Your task to perform on an android device: turn on location history Image 0: 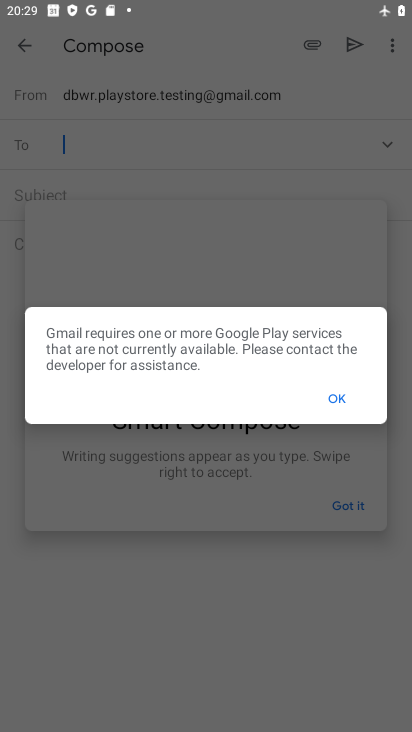
Step 0: press home button
Your task to perform on an android device: turn on location history Image 1: 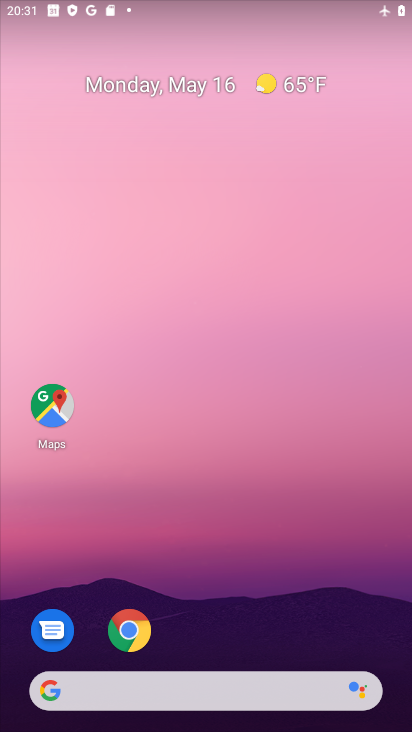
Step 1: drag from (195, 643) to (217, 100)
Your task to perform on an android device: turn on location history Image 2: 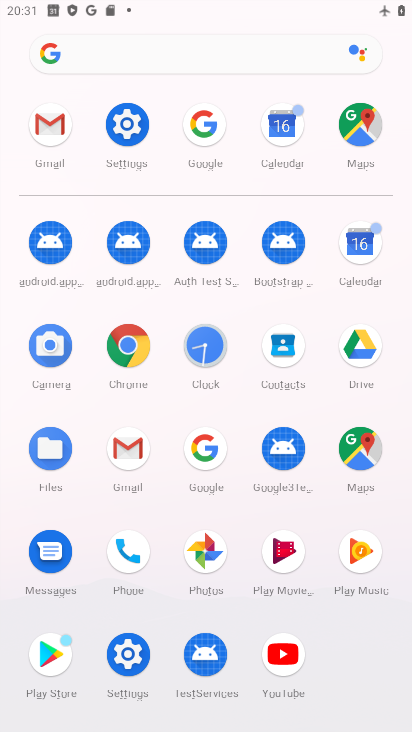
Step 2: click (143, 113)
Your task to perform on an android device: turn on location history Image 3: 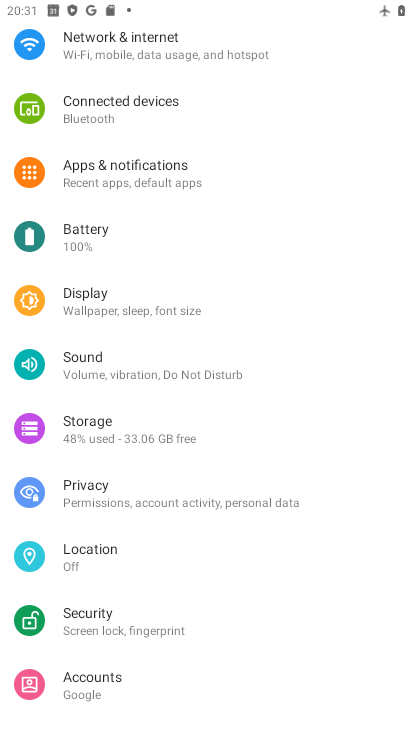
Step 3: click (113, 559)
Your task to perform on an android device: turn on location history Image 4: 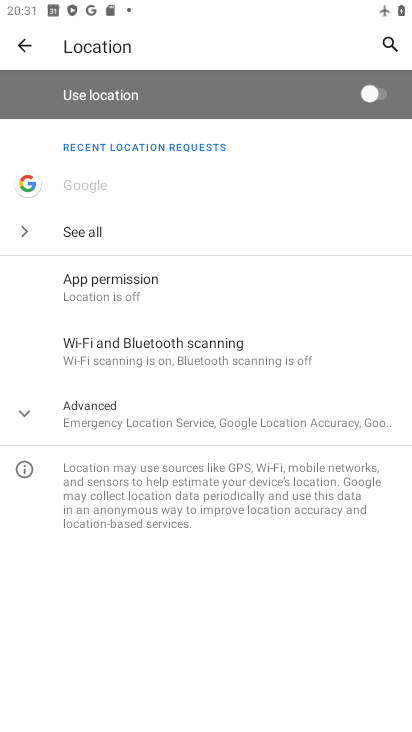
Step 4: click (136, 404)
Your task to perform on an android device: turn on location history Image 5: 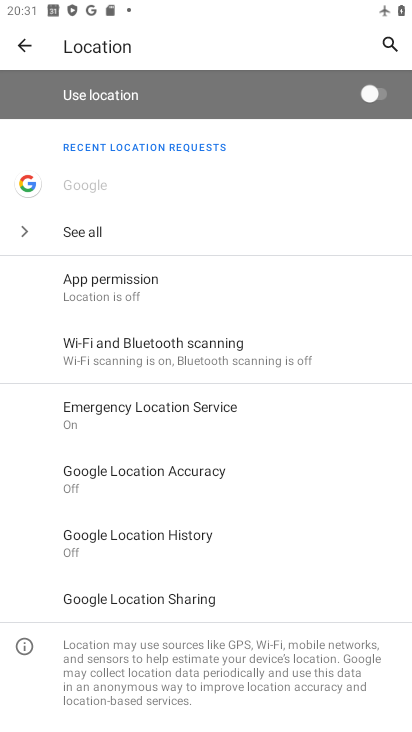
Step 5: click (168, 535)
Your task to perform on an android device: turn on location history Image 6: 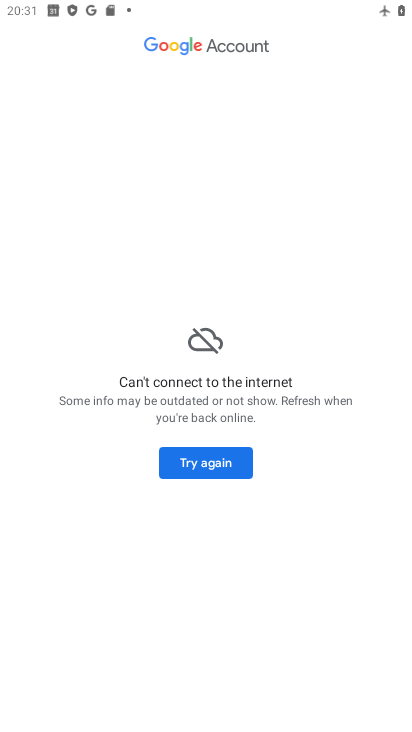
Step 6: task complete